Your task to perform on an android device: allow cookies in the chrome app Image 0: 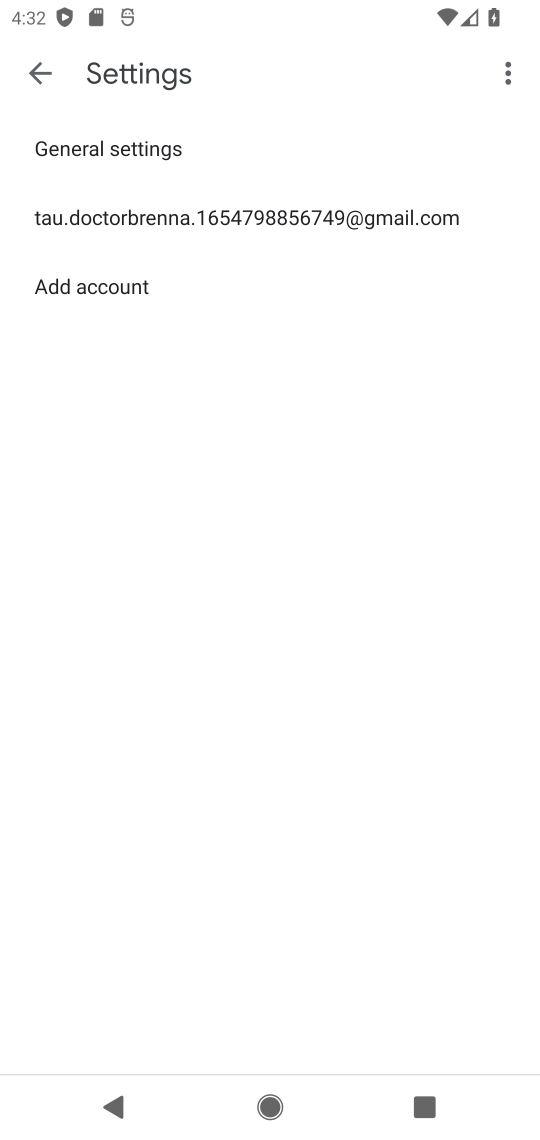
Step 0: press home button
Your task to perform on an android device: allow cookies in the chrome app Image 1: 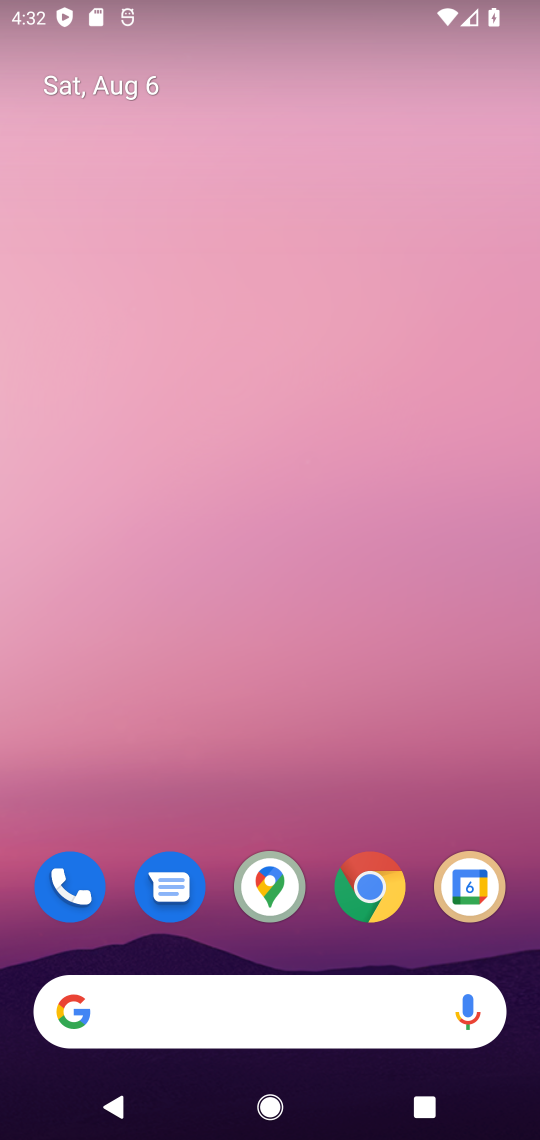
Step 1: click (389, 860)
Your task to perform on an android device: allow cookies in the chrome app Image 2: 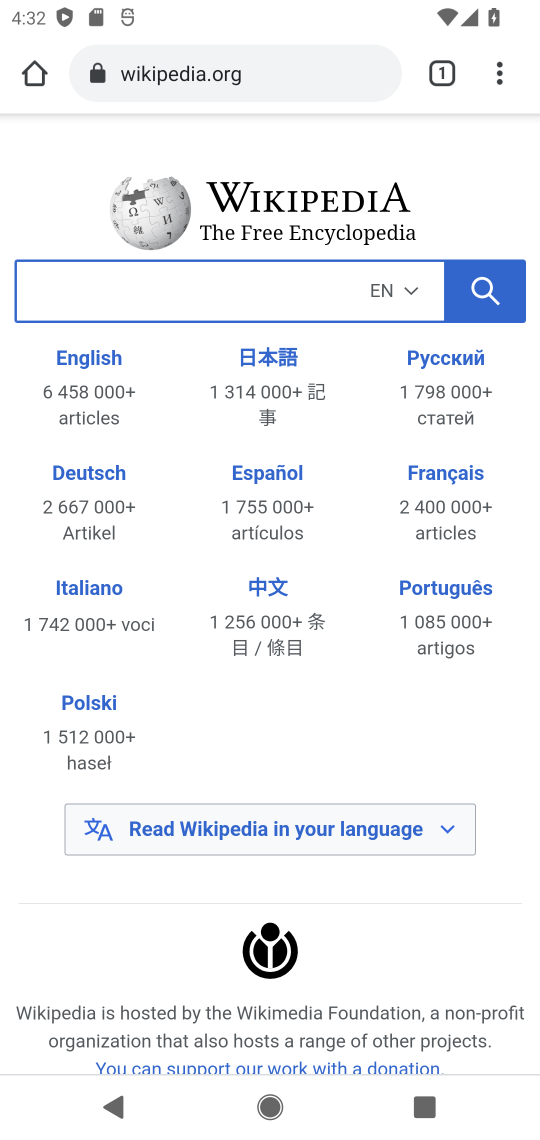
Step 2: drag from (499, 69) to (306, 950)
Your task to perform on an android device: allow cookies in the chrome app Image 3: 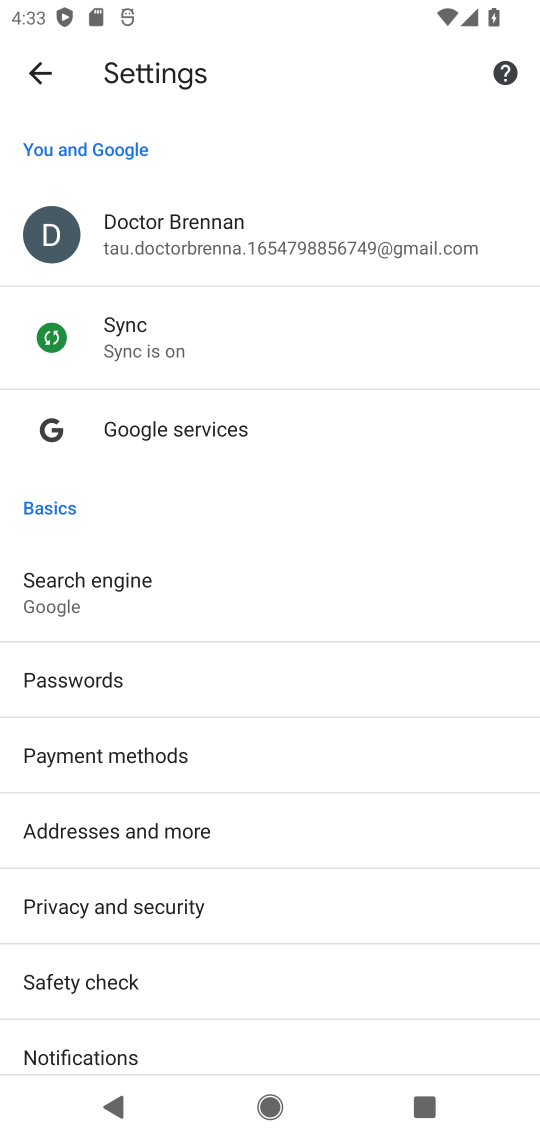
Step 3: drag from (245, 885) to (290, 106)
Your task to perform on an android device: allow cookies in the chrome app Image 4: 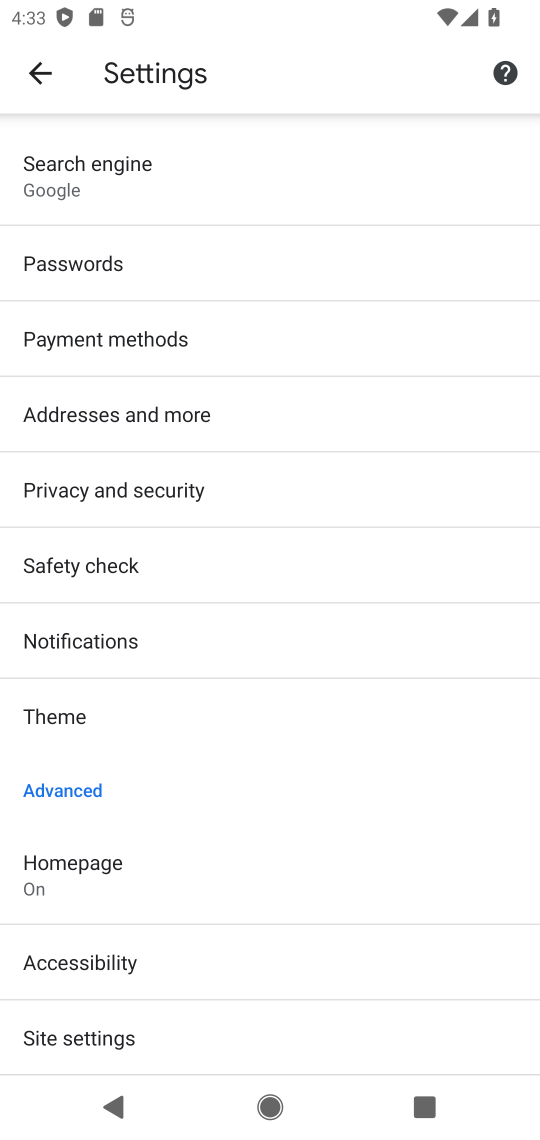
Step 4: click (212, 1013)
Your task to perform on an android device: allow cookies in the chrome app Image 5: 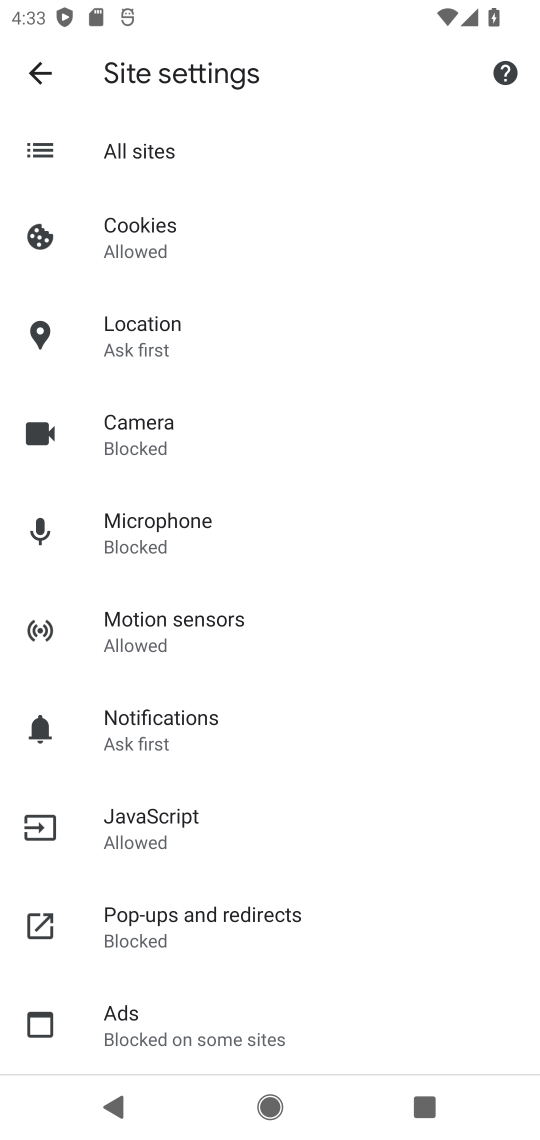
Step 5: click (197, 249)
Your task to perform on an android device: allow cookies in the chrome app Image 6: 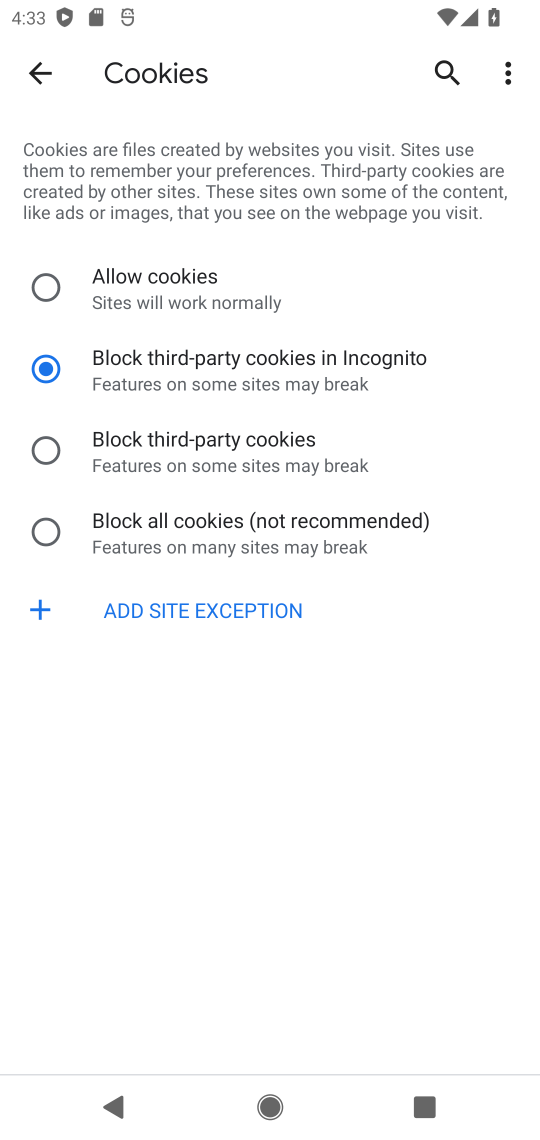
Step 6: click (162, 280)
Your task to perform on an android device: allow cookies in the chrome app Image 7: 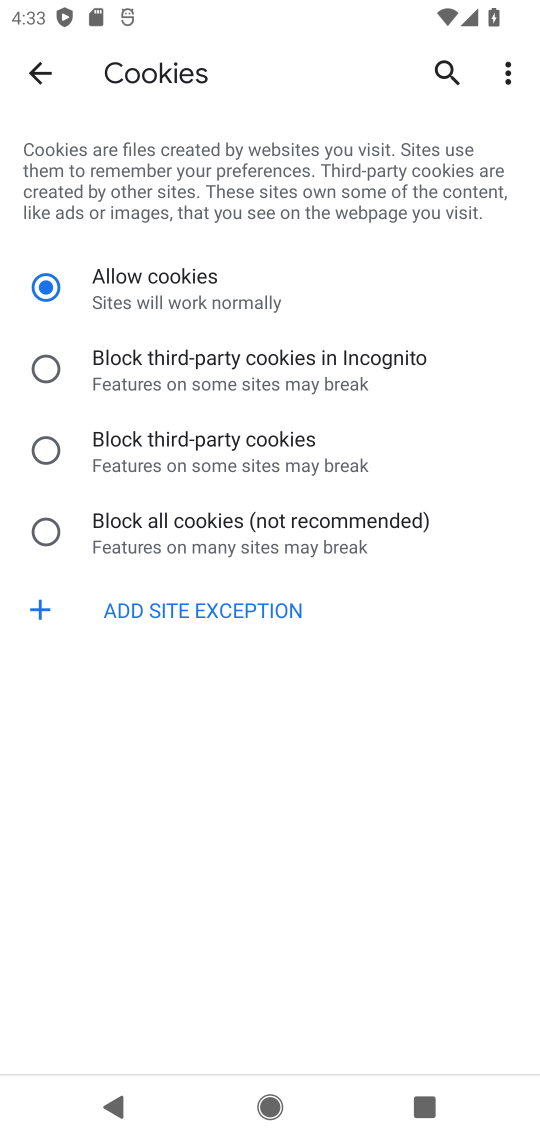
Step 7: task complete